Your task to perform on an android device: check battery use Image 0: 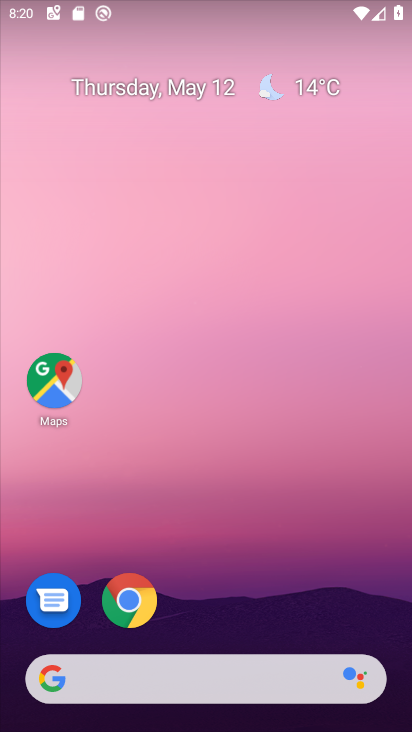
Step 0: drag from (351, 546) to (46, 9)
Your task to perform on an android device: check battery use Image 1: 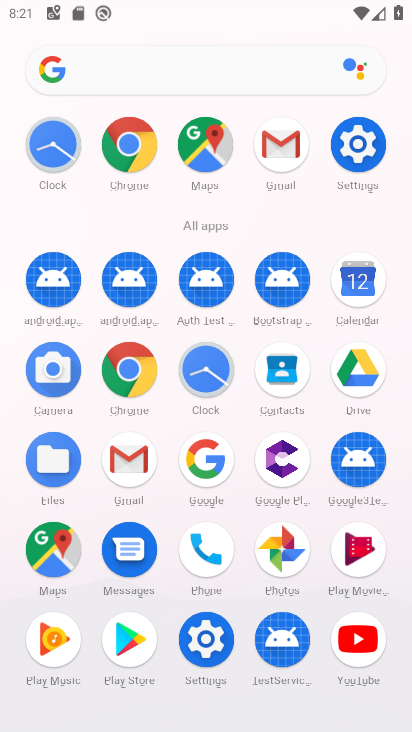
Step 1: click (351, 148)
Your task to perform on an android device: check battery use Image 2: 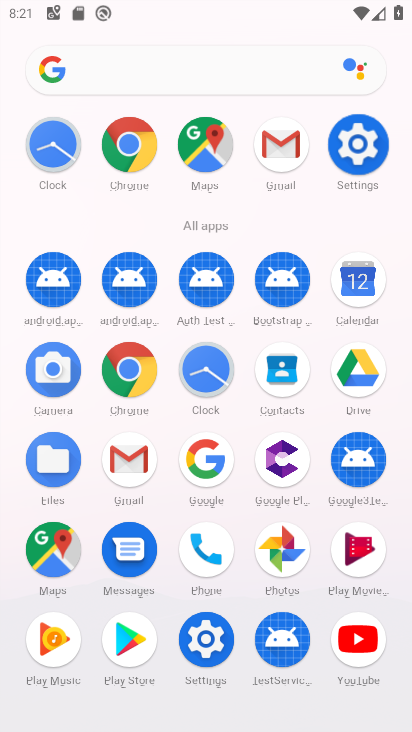
Step 2: click (351, 148)
Your task to perform on an android device: check battery use Image 3: 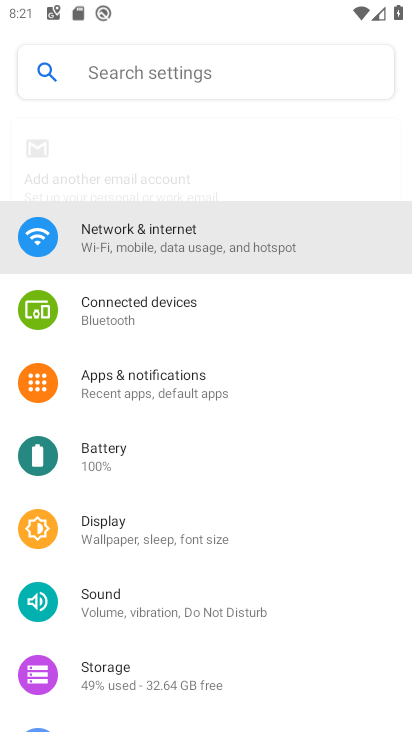
Step 3: click (351, 148)
Your task to perform on an android device: check battery use Image 4: 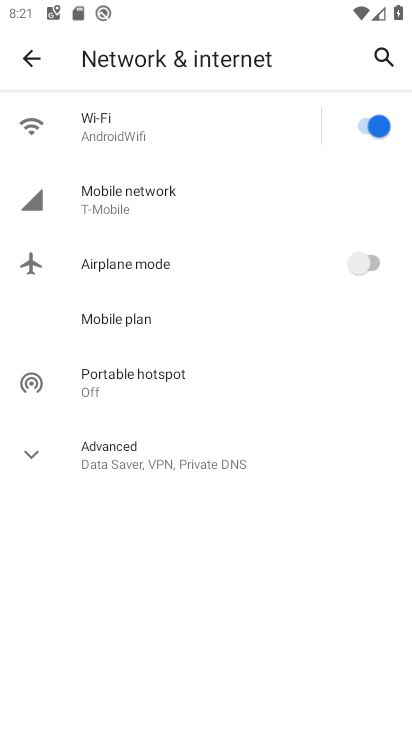
Step 4: click (25, 63)
Your task to perform on an android device: check battery use Image 5: 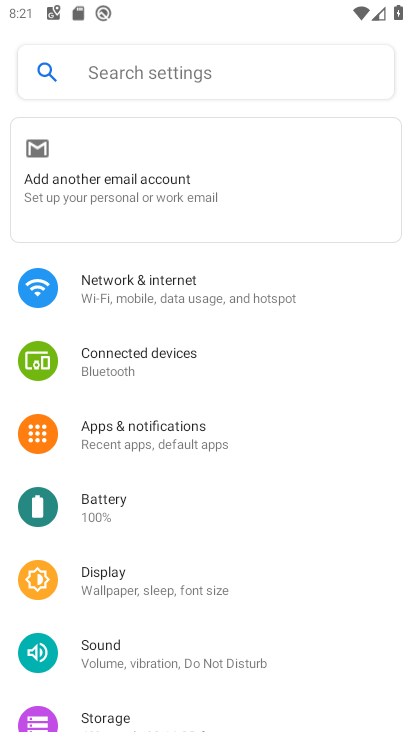
Step 5: click (99, 510)
Your task to perform on an android device: check battery use Image 6: 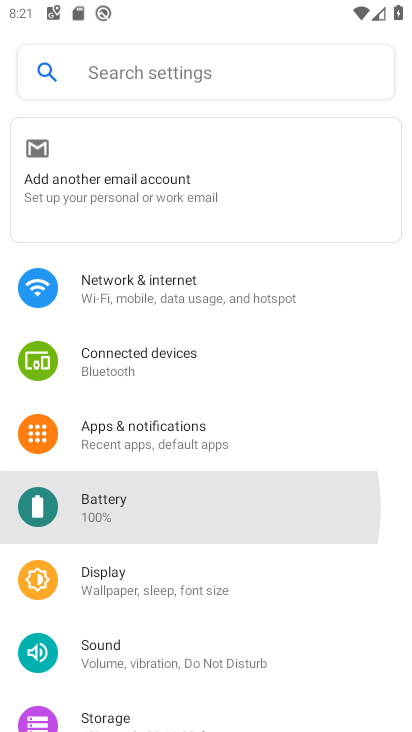
Step 6: click (94, 500)
Your task to perform on an android device: check battery use Image 7: 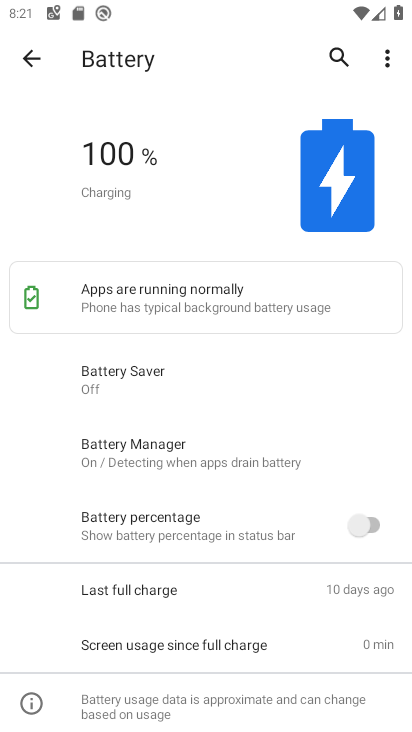
Step 7: task complete